Your task to perform on an android device: Open calendar and show me the first week of next month Image 0: 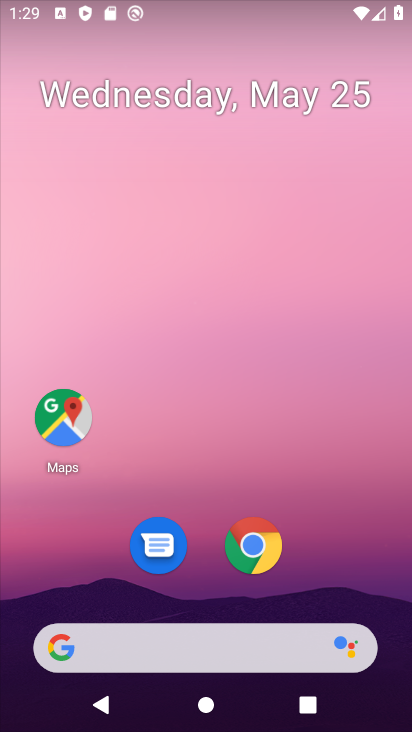
Step 0: drag from (374, 576) to (305, 199)
Your task to perform on an android device: Open calendar and show me the first week of next month Image 1: 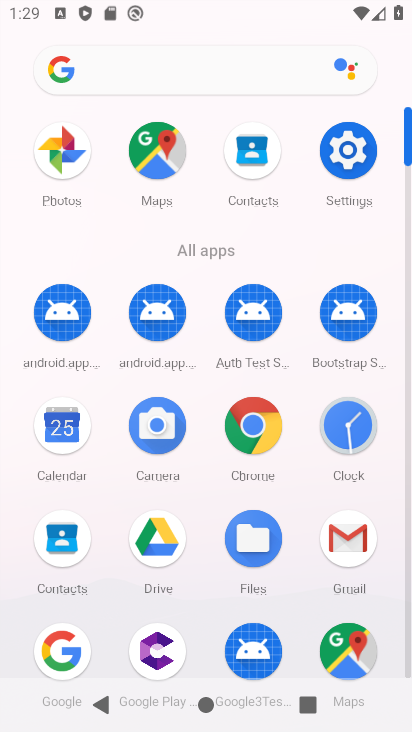
Step 1: click (78, 466)
Your task to perform on an android device: Open calendar and show me the first week of next month Image 2: 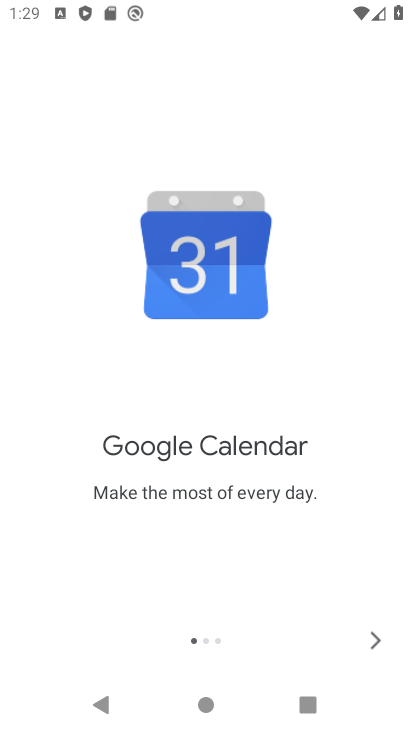
Step 2: click (383, 648)
Your task to perform on an android device: Open calendar and show me the first week of next month Image 3: 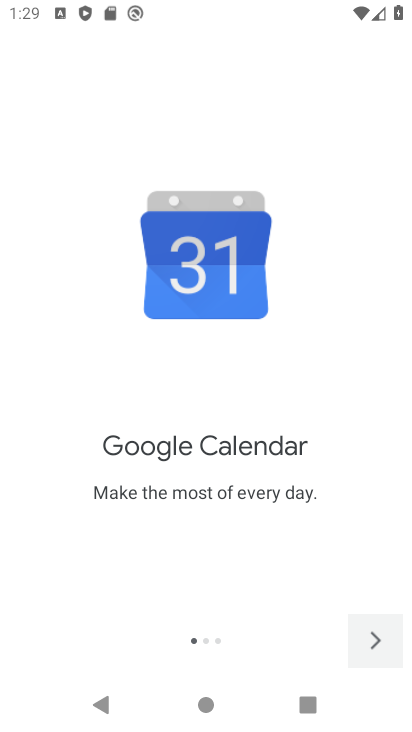
Step 3: click (383, 648)
Your task to perform on an android device: Open calendar and show me the first week of next month Image 4: 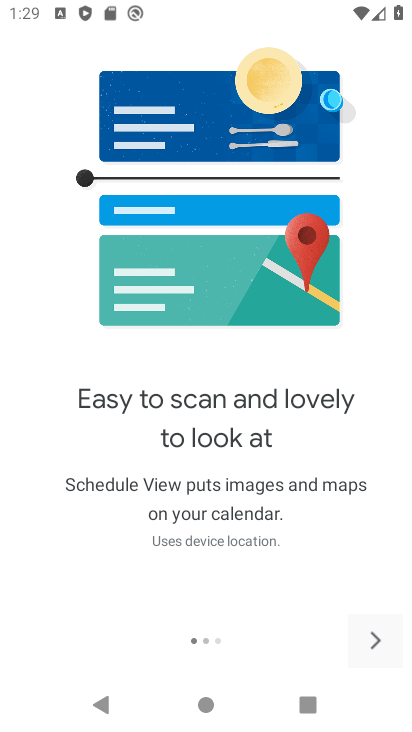
Step 4: click (383, 648)
Your task to perform on an android device: Open calendar and show me the first week of next month Image 5: 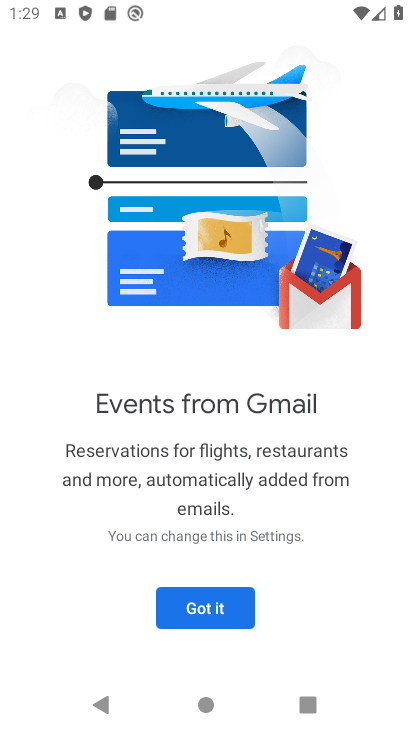
Step 5: click (383, 648)
Your task to perform on an android device: Open calendar and show me the first week of next month Image 6: 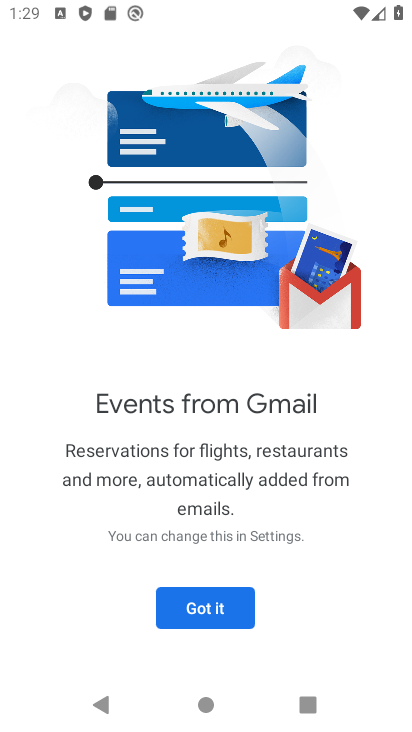
Step 6: click (383, 648)
Your task to perform on an android device: Open calendar and show me the first week of next month Image 7: 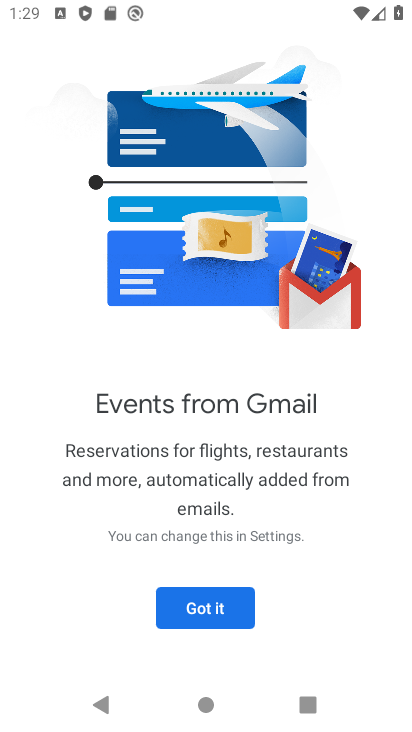
Step 7: click (229, 622)
Your task to perform on an android device: Open calendar and show me the first week of next month Image 8: 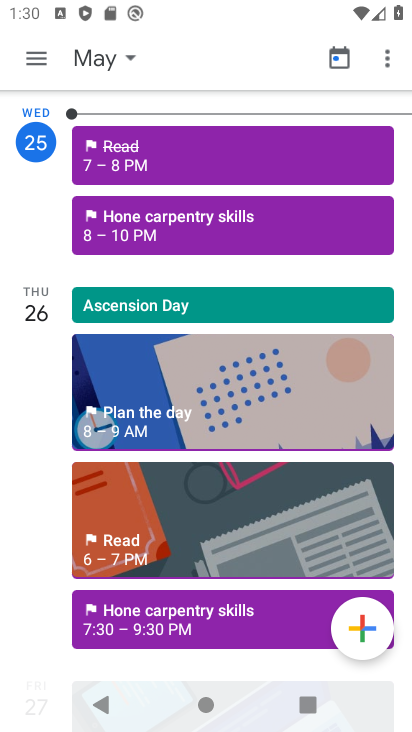
Step 8: task complete